Your task to perform on an android device: change notifications settings Image 0: 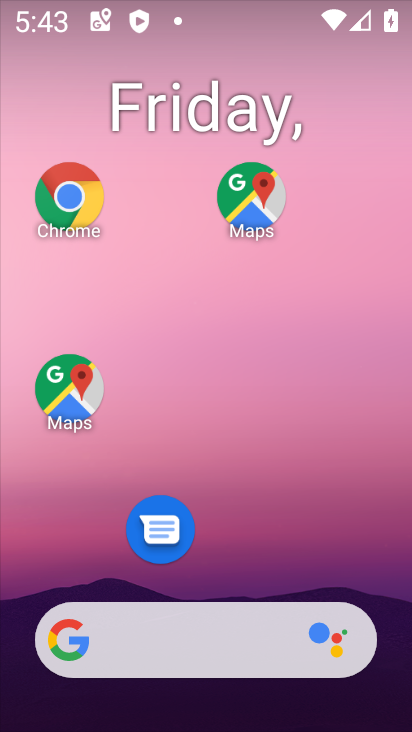
Step 0: drag from (246, 584) to (297, 263)
Your task to perform on an android device: change notifications settings Image 1: 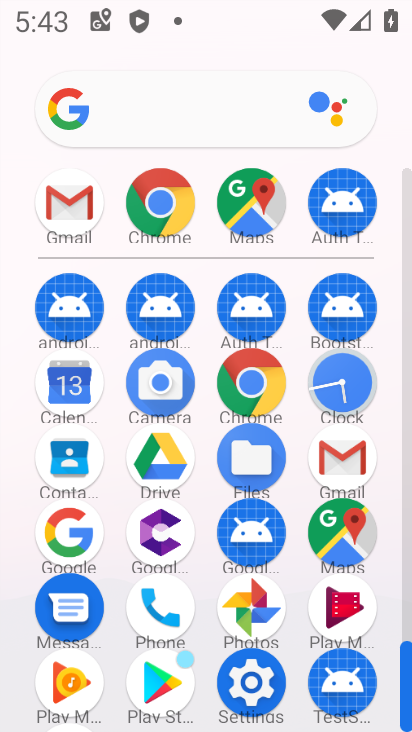
Step 1: click (244, 688)
Your task to perform on an android device: change notifications settings Image 2: 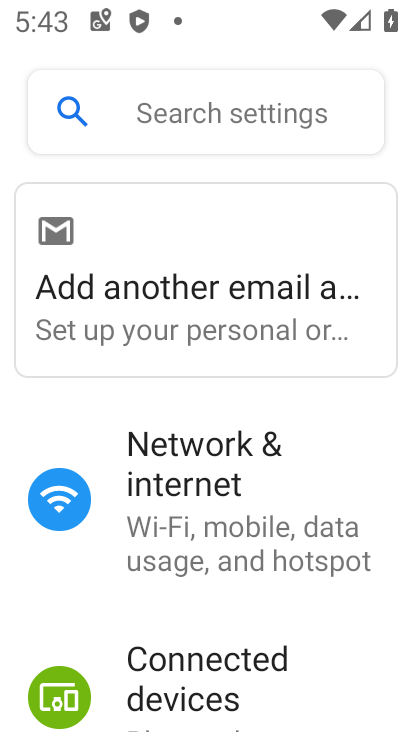
Step 2: drag from (223, 606) to (269, 253)
Your task to perform on an android device: change notifications settings Image 3: 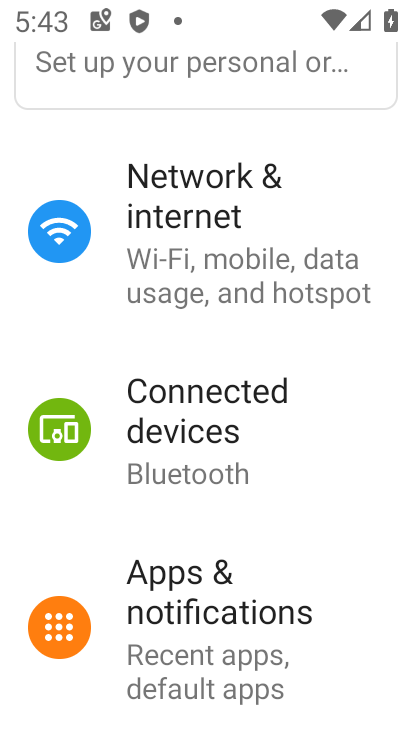
Step 3: click (191, 631)
Your task to perform on an android device: change notifications settings Image 4: 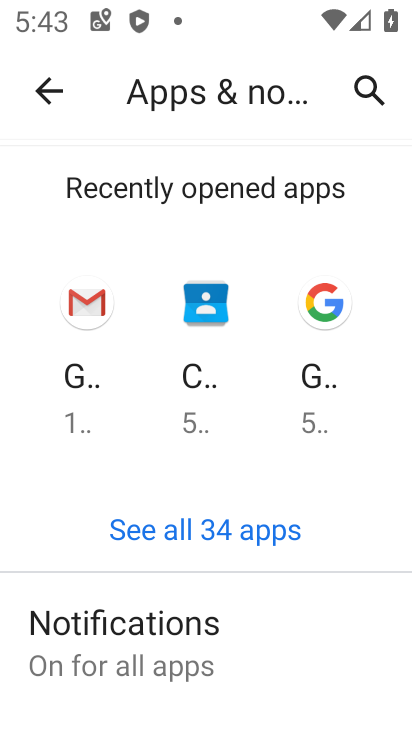
Step 4: click (179, 663)
Your task to perform on an android device: change notifications settings Image 5: 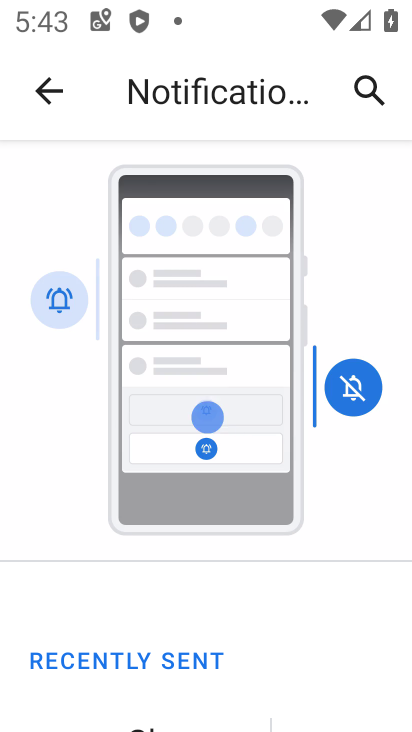
Step 5: drag from (184, 671) to (224, 384)
Your task to perform on an android device: change notifications settings Image 6: 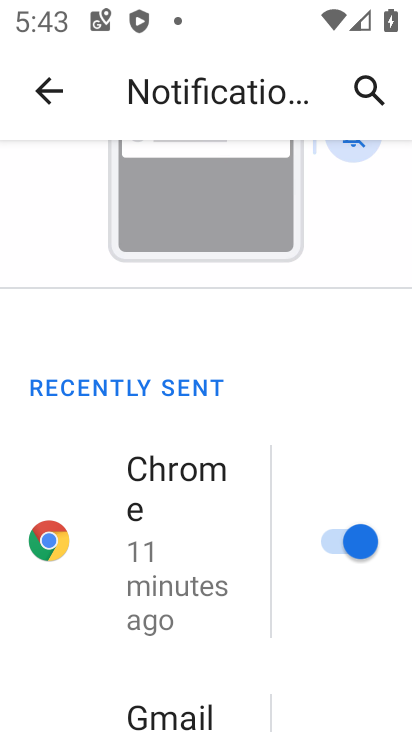
Step 6: drag from (215, 673) to (274, 326)
Your task to perform on an android device: change notifications settings Image 7: 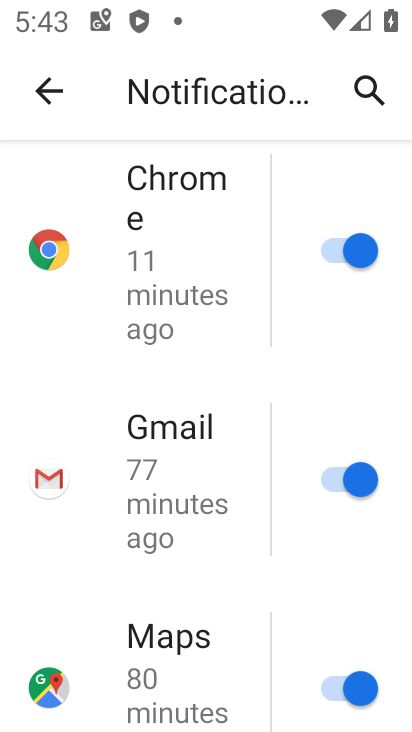
Step 7: drag from (179, 652) to (240, 324)
Your task to perform on an android device: change notifications settings Image 8: 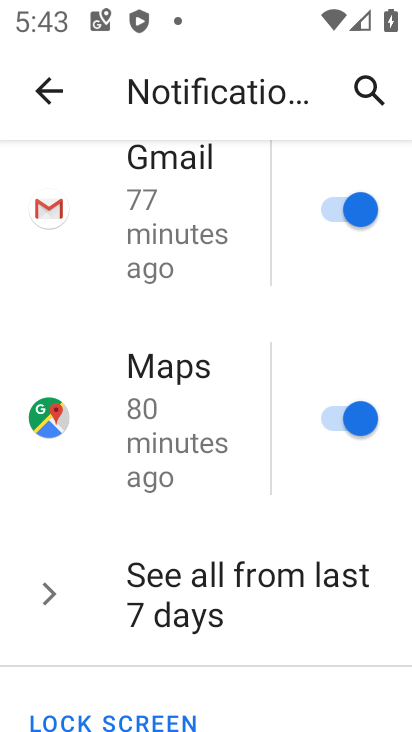
Step 8: drag from (193, 682) to (254, 250)
Your task to perform on an android device: change notifications settings Image 9: 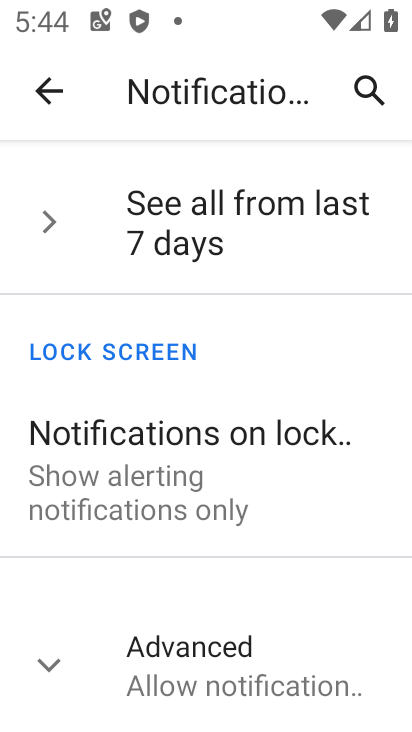
Step 9: click (270, 325)
Your task to perform on an android device: change notifications settings Image 10: 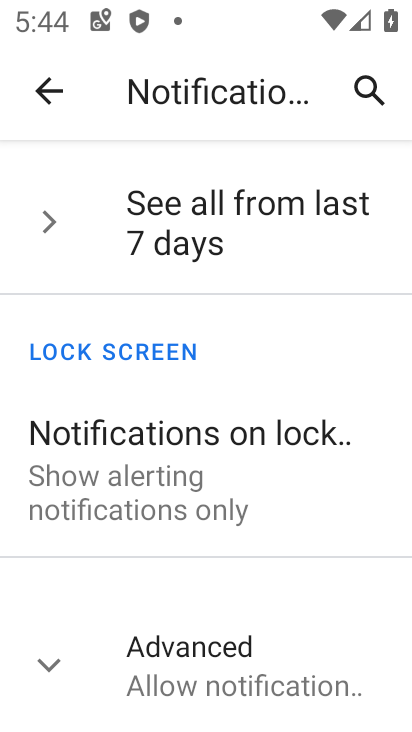
Step 10: click (157, 471)
Your task to perform on an android device: change notifications settings Image 11: 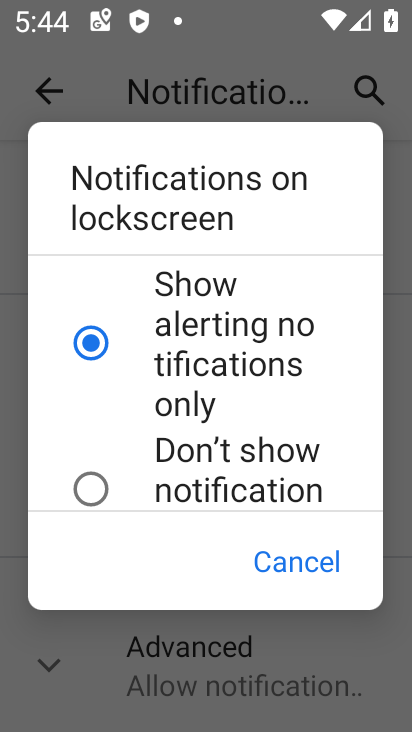
Step 11: click (90, 500)
Your task to perform on an android device: change notifications settings Image 12: 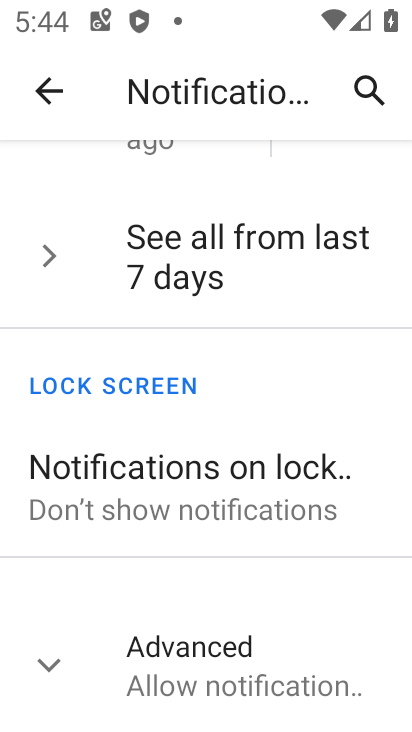
Step 12: task complete